Your task to perform on an android device: Search for sushi restaurants on Maps Image 0: 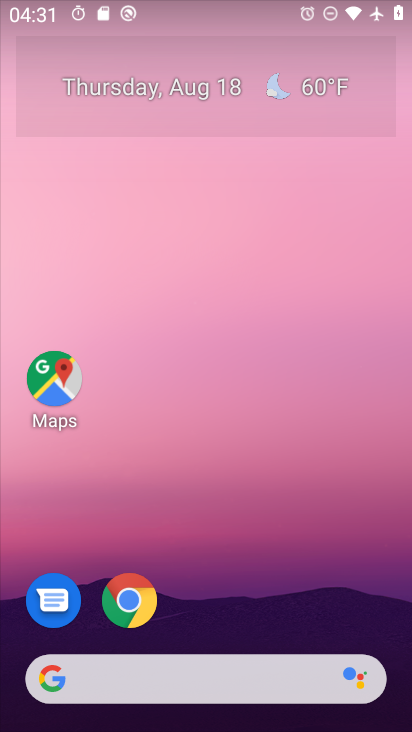
Step 0: click (53, 393)
Your task to perform on an android device: Search for sushi restaurants on Maps Image 1: 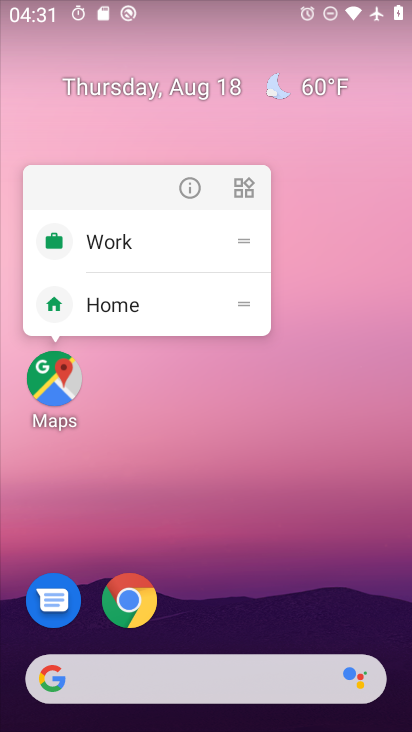
Step 1: click (53, 393)
Your task to perform on an android device: Search for sushi restaurants on Maps Image 2: 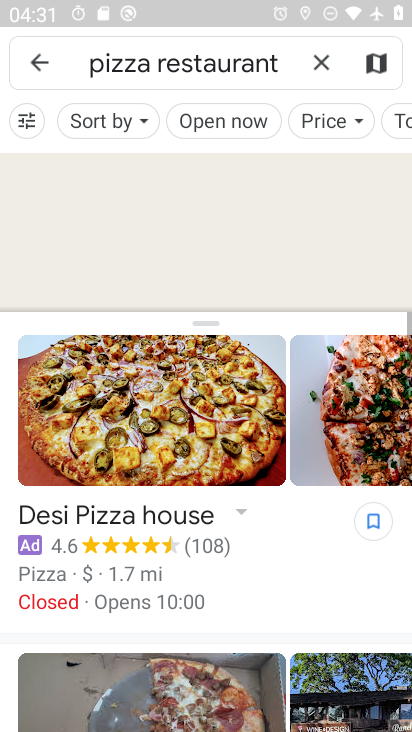
Step 2: press back button
Your task to perform on an android device: Search for sushi restaurants on Maps Image 3: 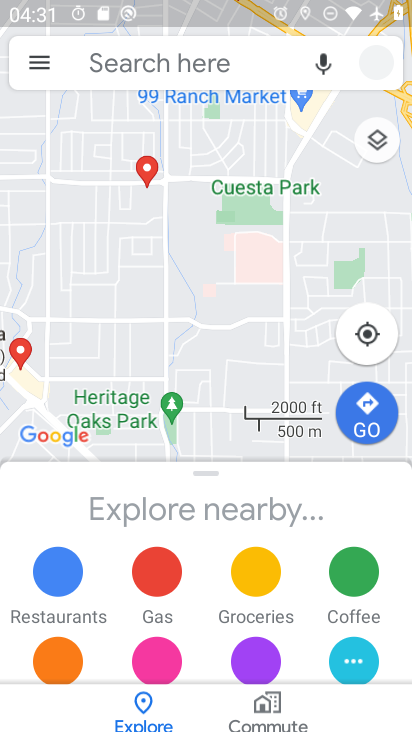
Step 3: click (149, 56)
Your task to perform on an android device: Search for sushi restaurants on Maps Image 4: 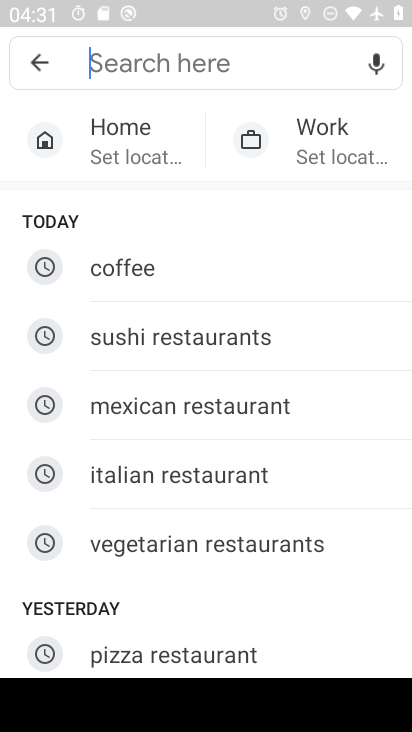
Step 4: click (181, 340)
Your task to perform on an android device: Search for sushi restaurants on Maps Image 5: 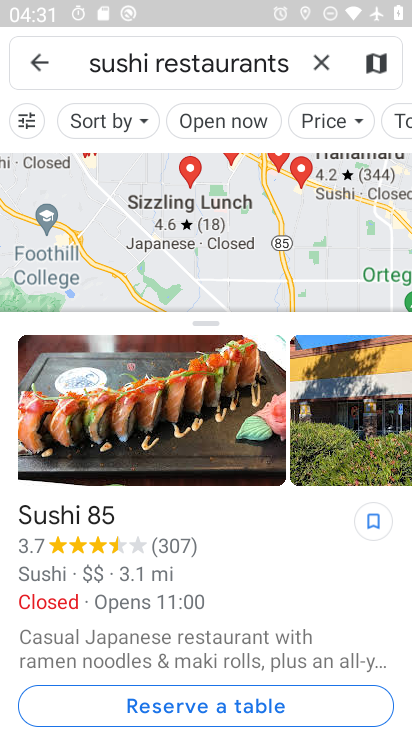
Step 5: task complete